Your task to perform on an android device: Open Google Chrome Image 0: 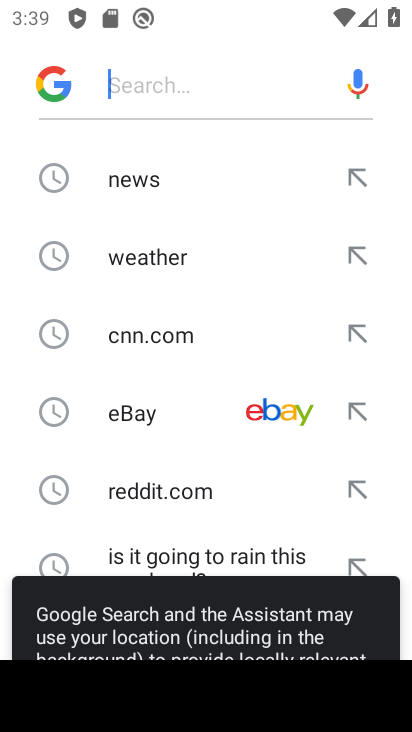
Step 0: click (63, 73)
Your task to perform on an android device: Open Google Chrome Image 1: 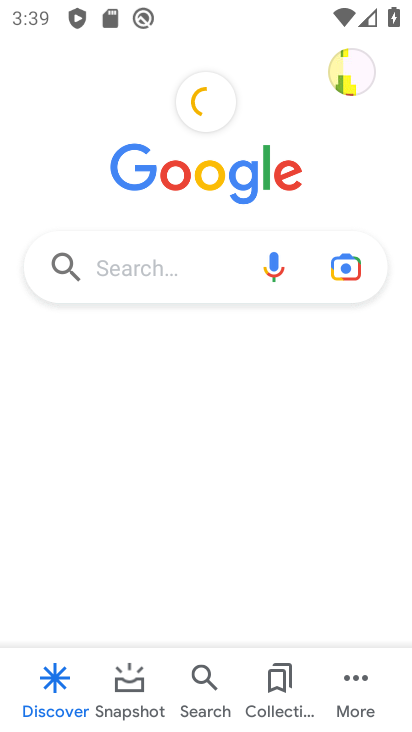
Step 1: press back button
Your task to perform on an android device: Open Google Chrome Image 2: 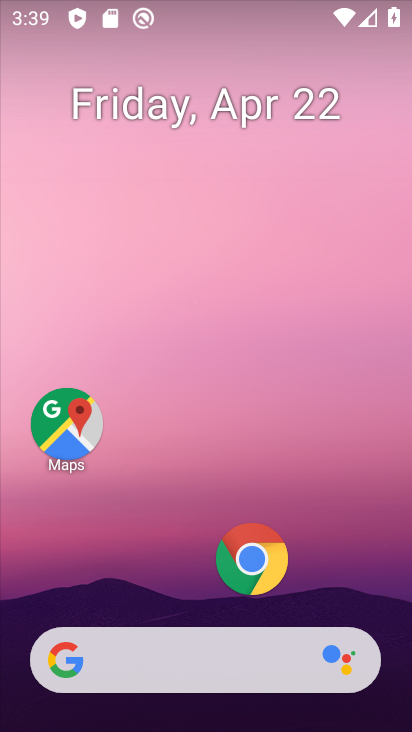
Step 2: click (173, 631)
Your task to perform on an android device: Open Google Chrome Image 3: 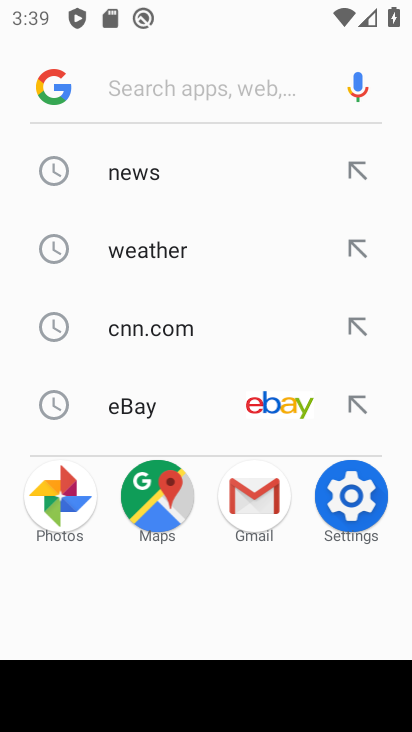
Step 3: click (77, 658)
Your task to perform on an android device: Open Google Chrome Image 4: 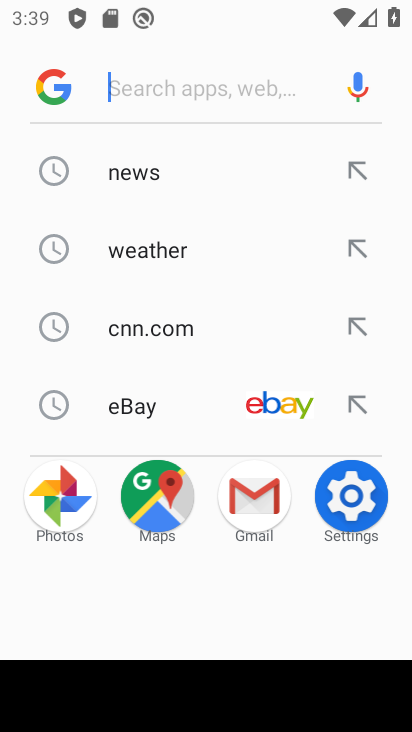
Step 4: click (44, 74)
Your task to perform on an android device: Open Google Chrome Image 5: 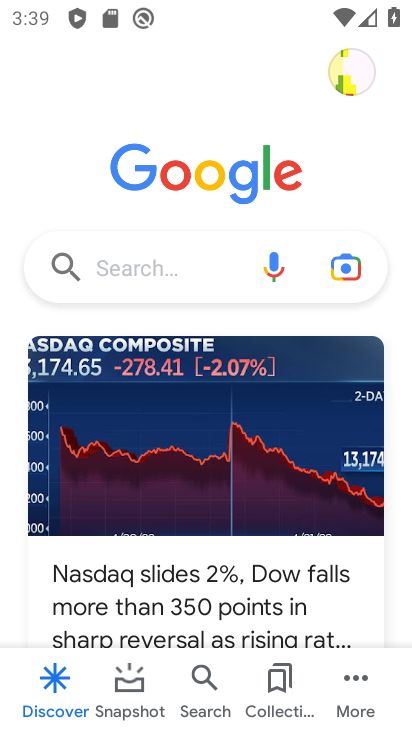
Step 5: task complete